Your task to perform on an android device: open app "NewsBreak: Local News & Alerts" (install if not already installed) Image 0: 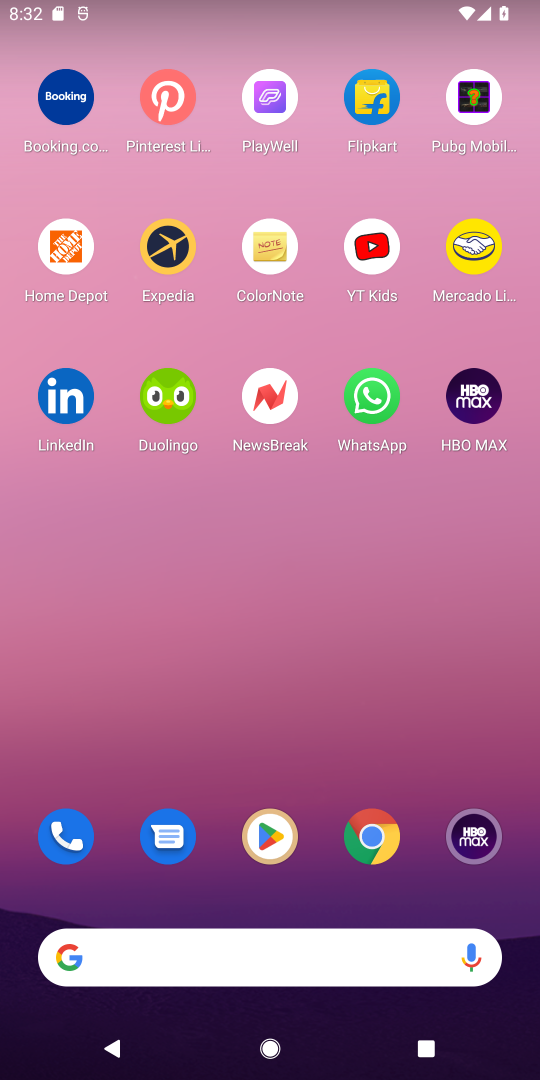
Step 0: press home button
Your task to perform on an android device: open app "NewsBreak: Local News & Alerts" (install if not already installed) Image 1: 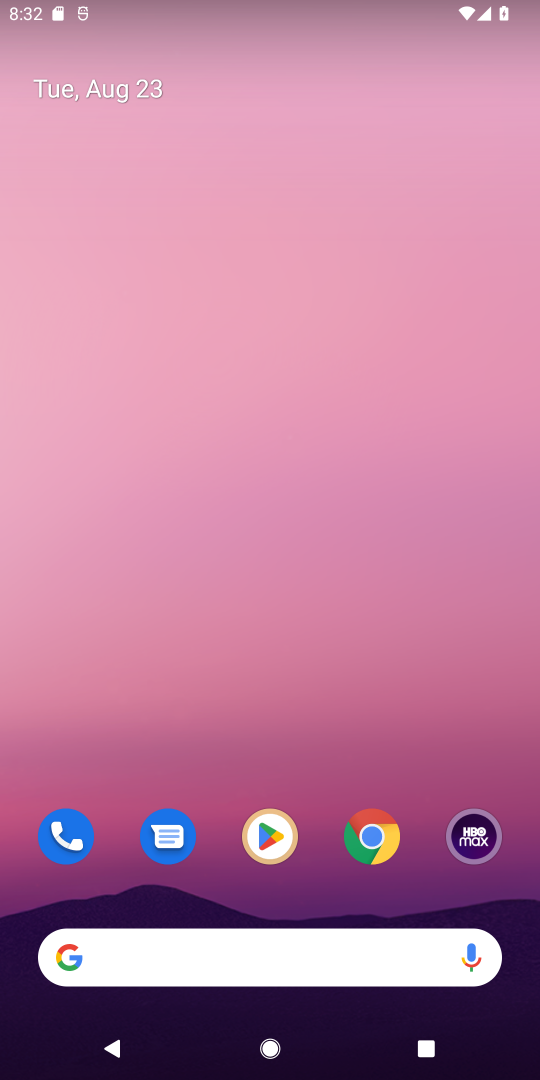
Step 1: click (266, 829)
Your task to perform on an android device: open app "NewsBreak: Local News & Alerts" (install if not already installed) Image 2: 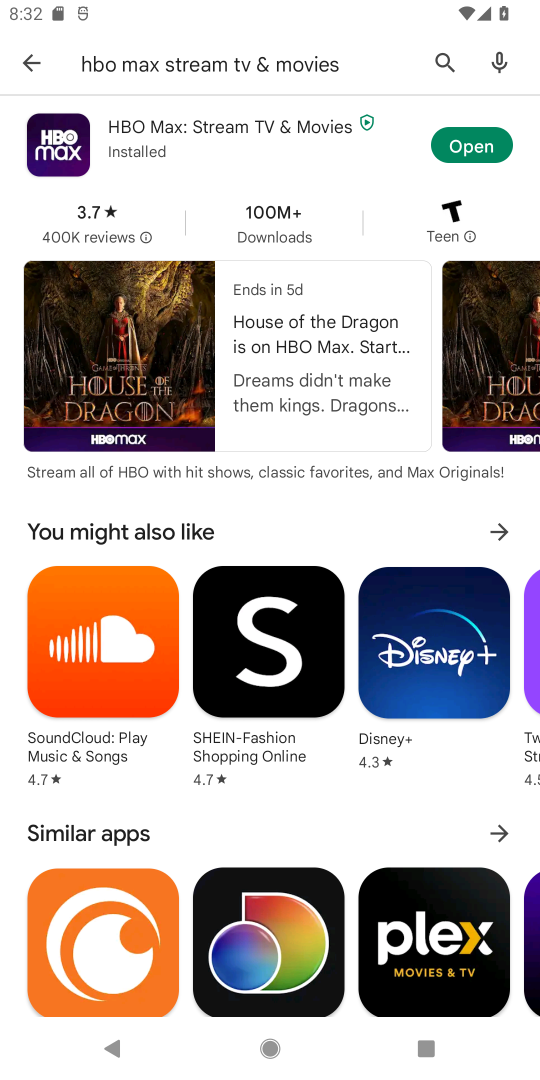
Step 2: click (446, 55)
Your task to perform on an android device: open app "NewsBreak: Local News & Alerts" (install if not already installed) Image 3: 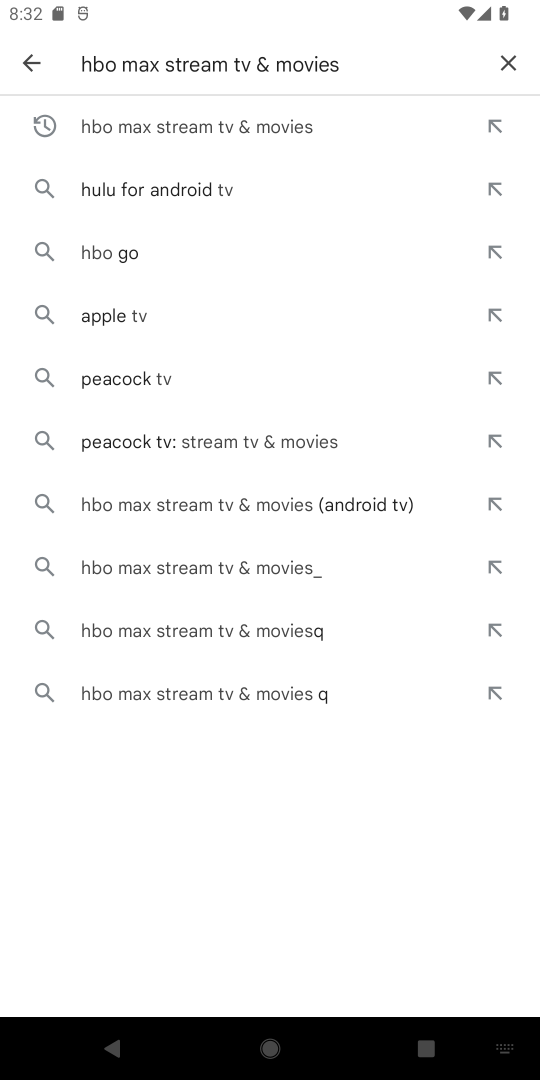
Step 3: click (505, 60)
Your task to perform on an android device: open app "NewsBreak: Local News & Alerts" (install if not already installed) Image 4: 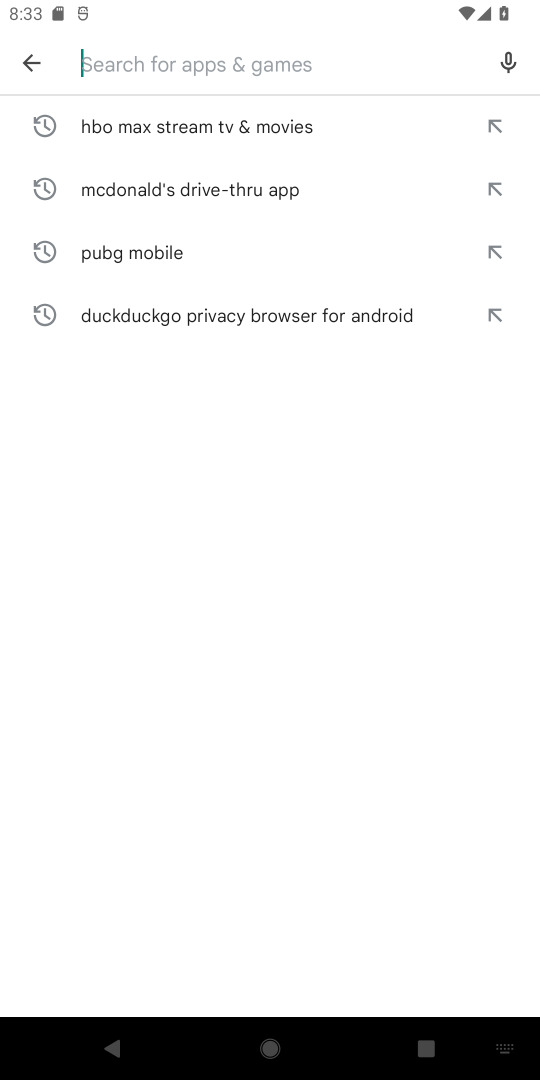
Step 4: type "NewsBreak: Local News & Alerts"
Your task to perform on an android device: open app "NewsBreak: Local News & Alerts" (install if not already installed) Image 5: 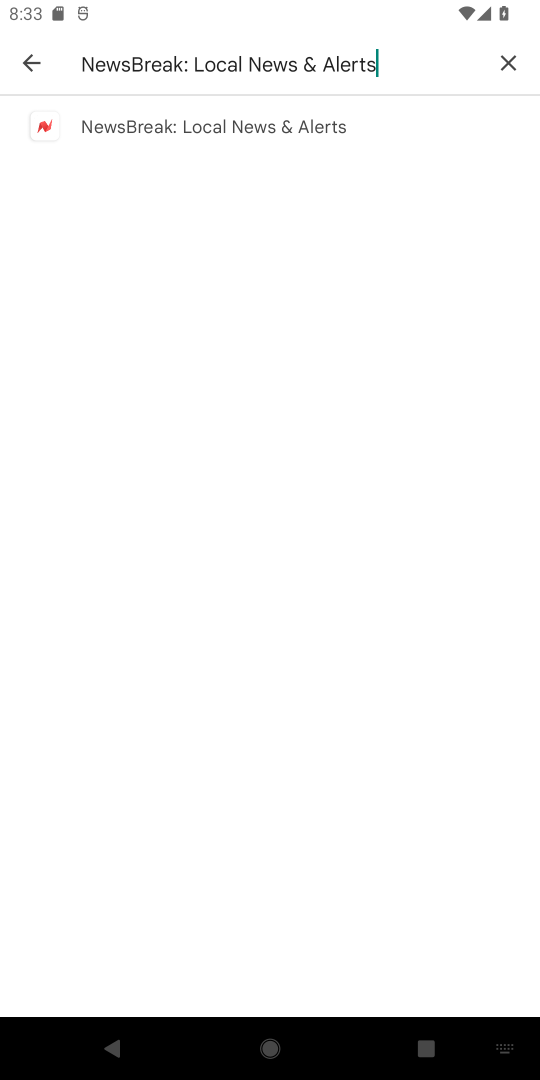
Step 5: click (196, 131)
Your task to perform on an android device: open app "NewsBreak: Local News & Alerts" (install if not already installed) Image 6: 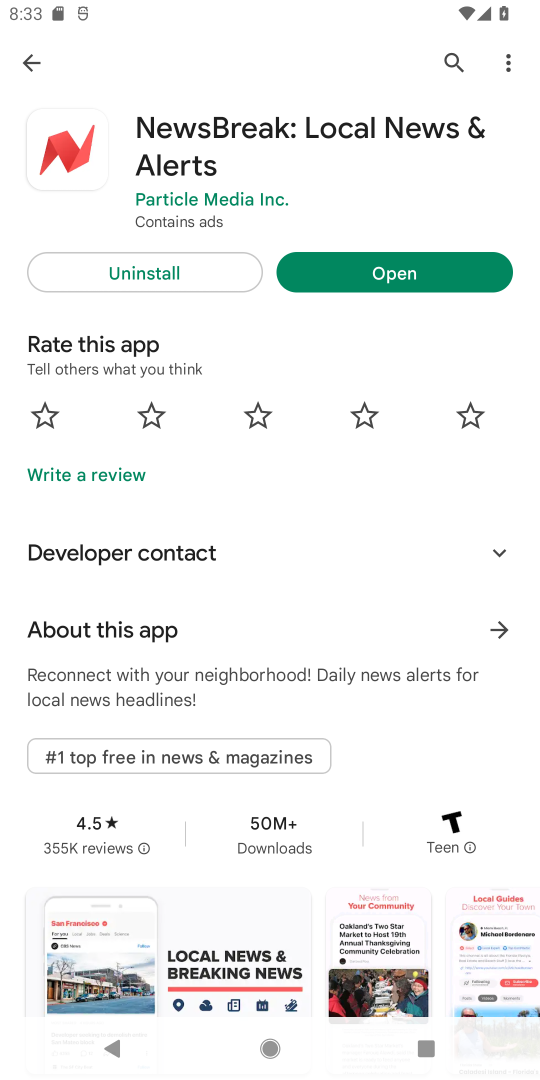
Step 6: click (375, 274)
Your task to perform on an android device: open app "NewsBreak: Local News & Alerts" (install if not already installed) Image 7: 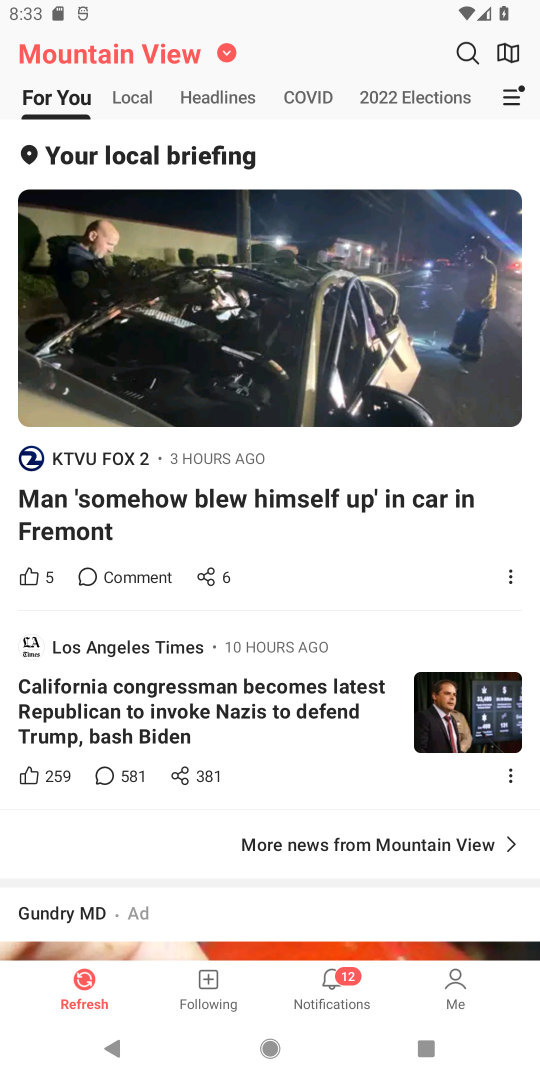
Step 7: task complete